Your task to perform on an android device: toggle notifications settings in the gmail app Image 0: 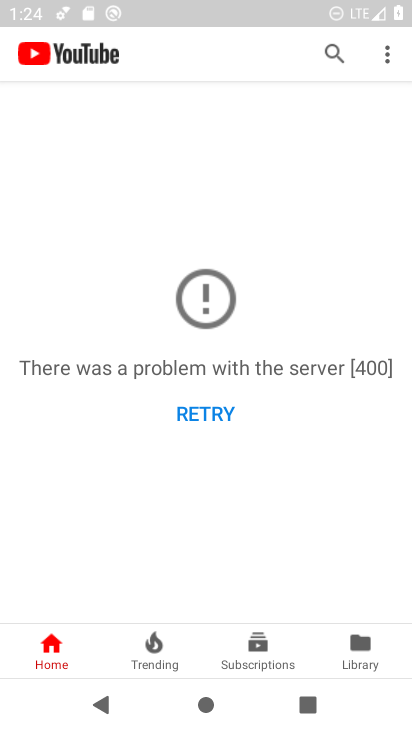
Step 0: press home button
Your task to perform on an android device: toggle notifications settings in the gmail app Image 1: 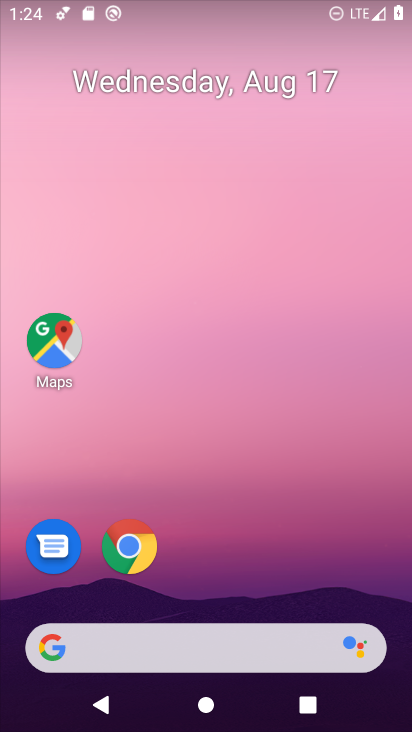
Step 1: drag from (234, 582) to (206, 135)
Your task to perform on an android device: toggle notifications settings in the gmail app Image 2: 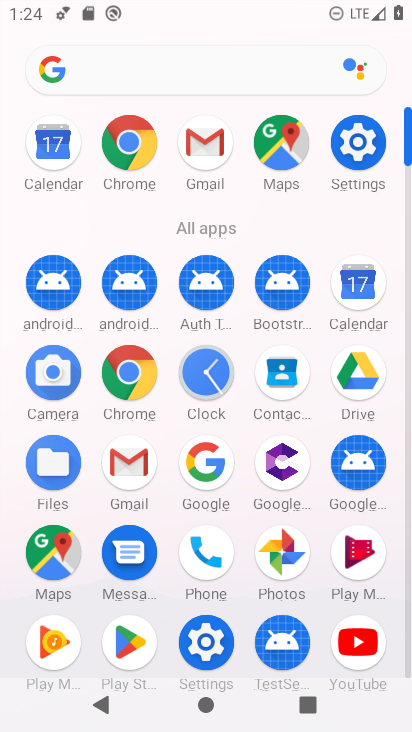
Step 2: click (206, 141)
Your task to perform on an android device: toggle notifications settings in the gmail app Image 3: 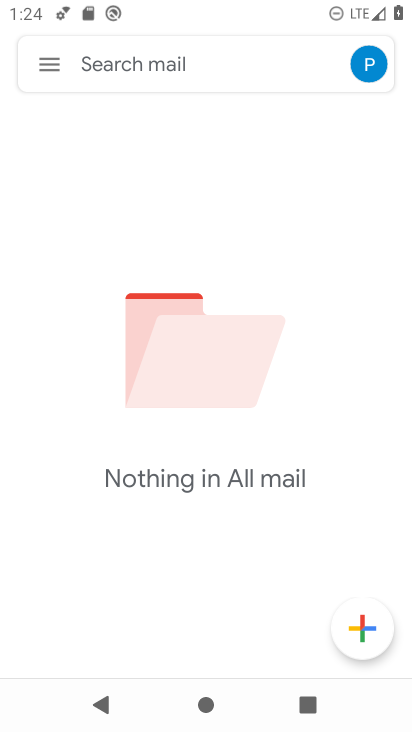
Step 3: click (47, 60)
Your task to perform on an android device: toggle notifications settings in the gmail app Image 4: 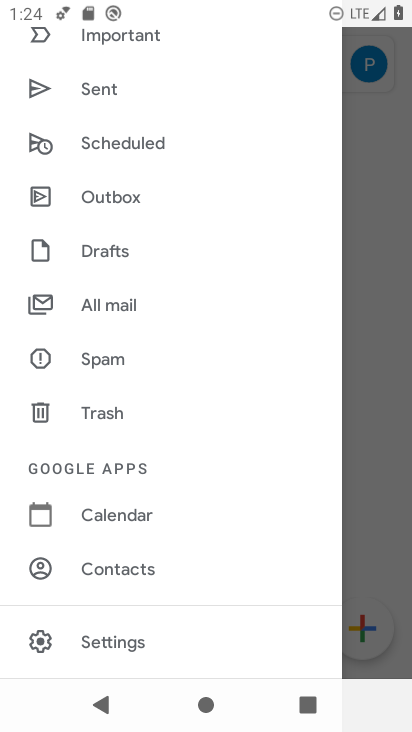
Step 4: drag from (176, 123) to (170, 390)
Your task to perform on an android device: toggle notifications settings in the gmail app Image 5: 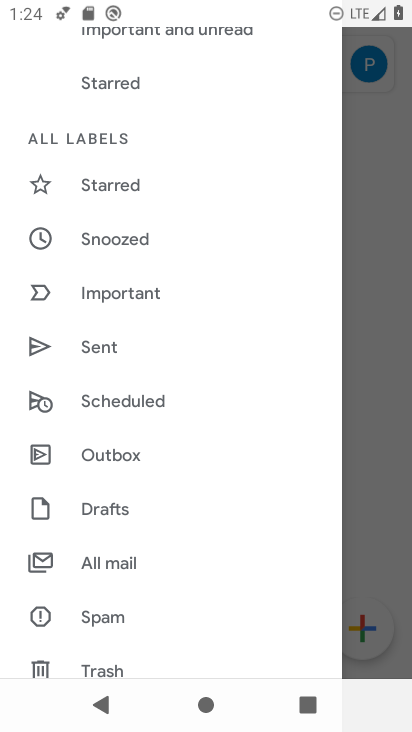
Step 5: drag from (173, 161) to (210, 483)
Your task to perform on an android device: toggle notifications settings in the gmail app Image 6: 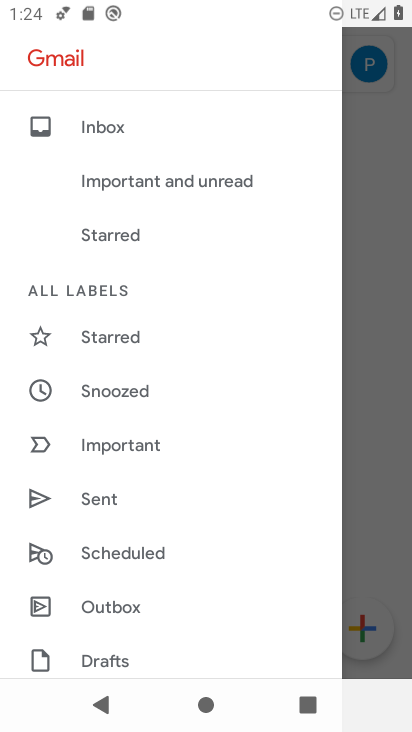
Step 6: drag from (211, 567) to (180, 93)
Your task to perform on an android device: toggle notifications settings in the gmail app Image 7: 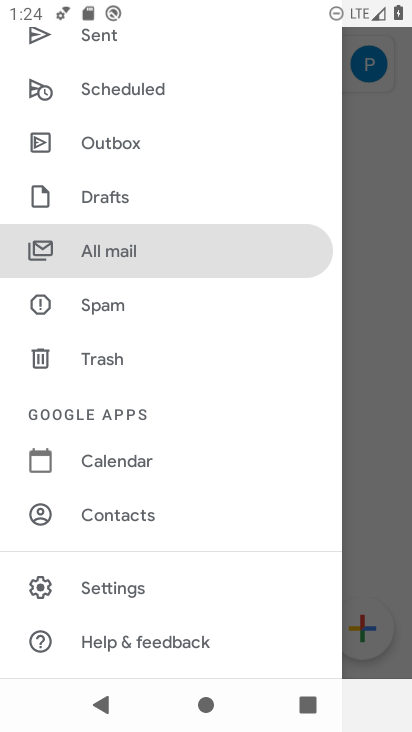
Step 7: click (111, 581)
Your task to perform on an android device: toggle notifications settings in the gmail app Image 8: 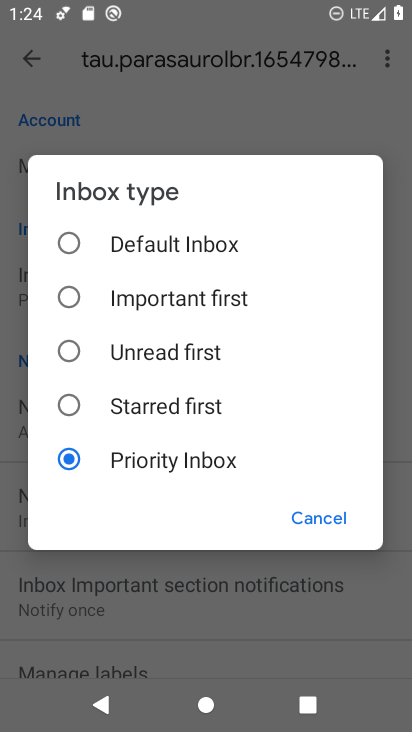
Step 8: click (302, 508)
Your task to perform on an android device: toggle notifications settings in the gmail app Image 9: 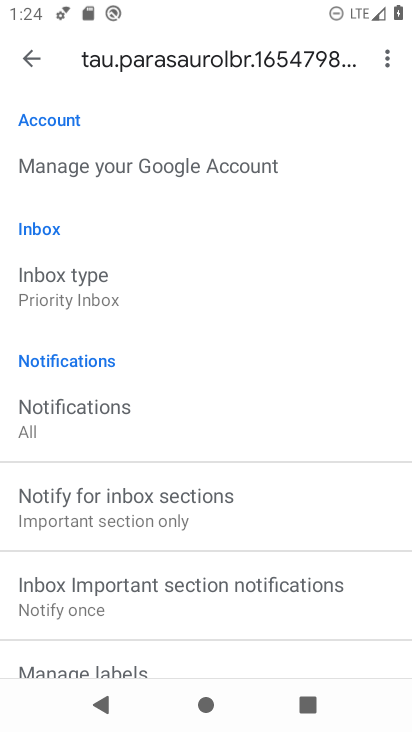
Step 9: click (36, 57)
Your task to perform on an android device: toggle notifications settings in the gmail app Image 10: 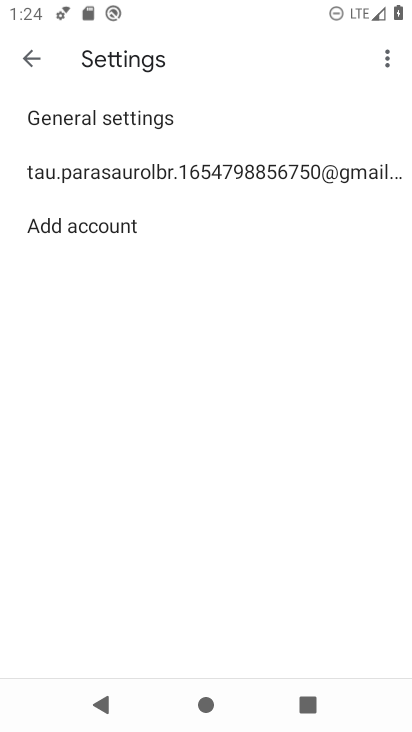
Step 10: click (81, 111)
Your task to perform on an android device: toggle notifications settings in the gmail app Image 11: 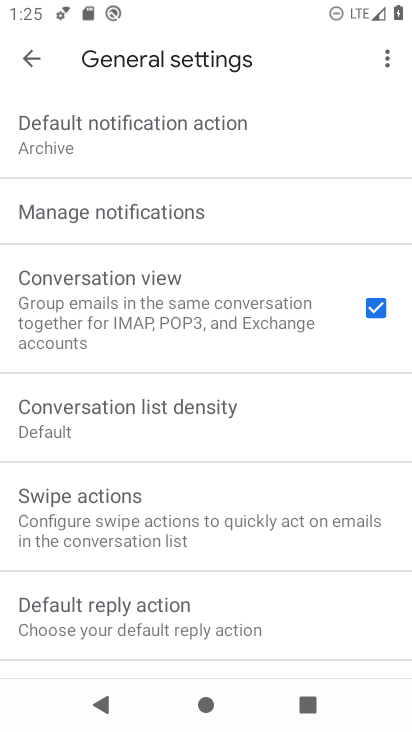
Step 11: click (103, 210)
Your task to perform on an android device: toggle notifications settings in the gmail app Image 12: 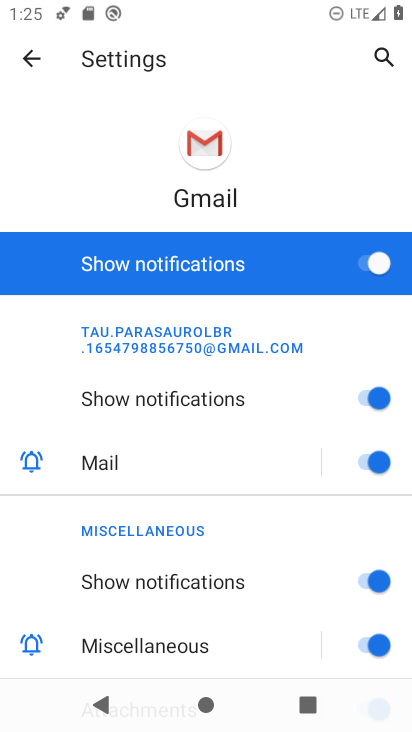
Step 12: click (378, 260)
Your task to perform on an android device: toggle notifications settings in the gmail app Image 13: 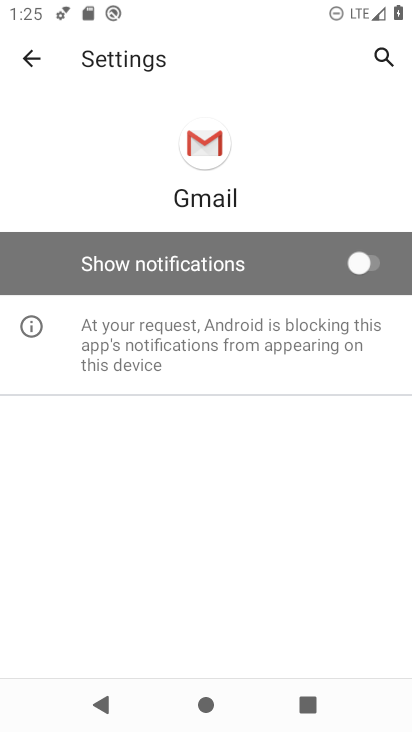
Step 13: task complete